Your task to perform on an android device: open app "Skype" Image 0: 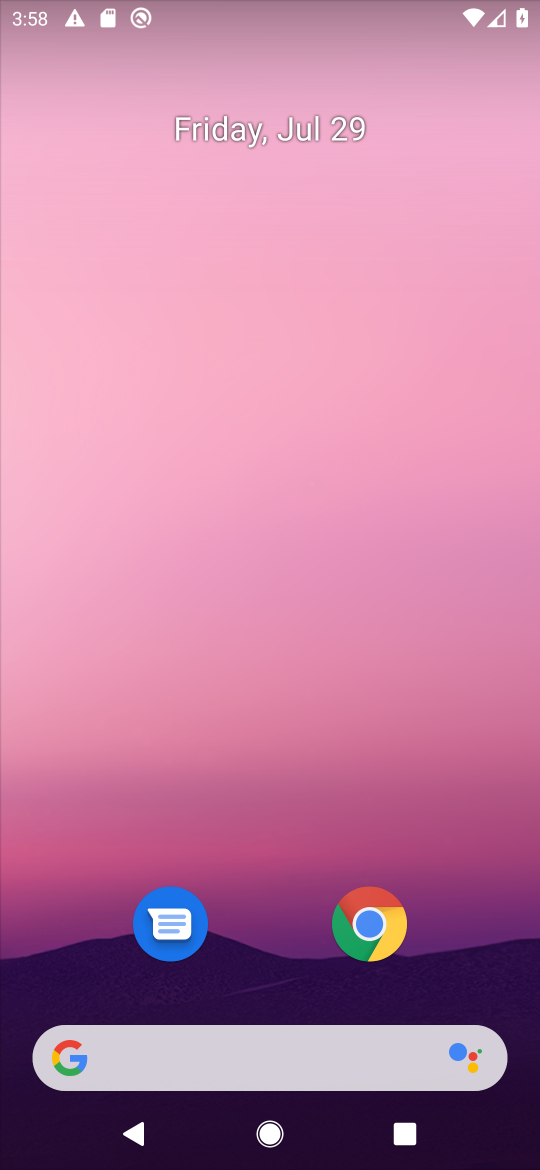
Step 0: drag from (346, 1081) to (150, 345)
Your task to perform on an android device: open app "Skype" Image 1: 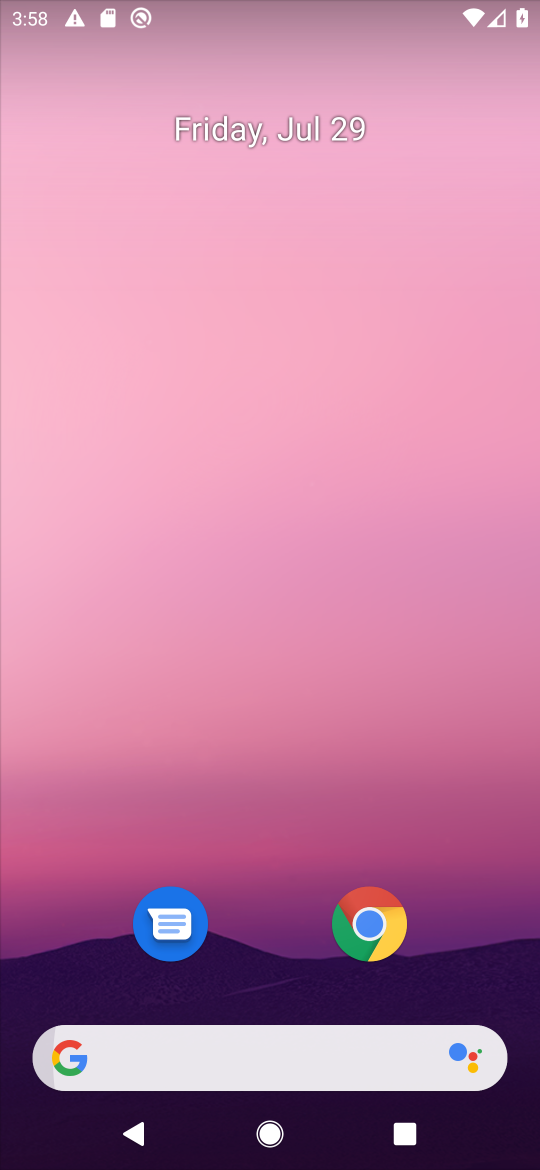
Step 1: drag from (303, 969) to (225, 365)
Your task to perform on an android device: open app "Skype" Image 2: 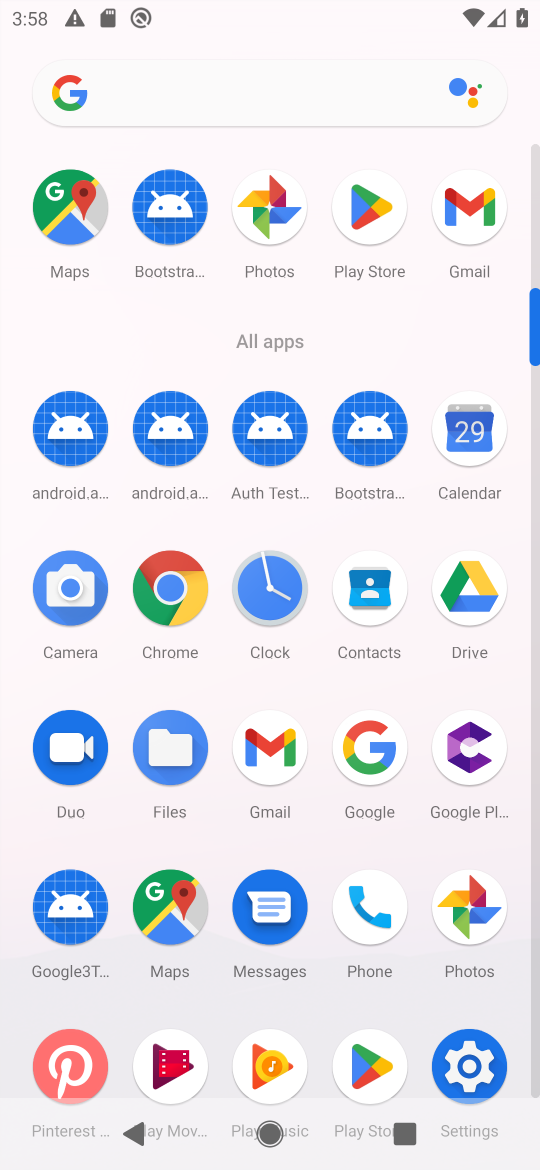
Step 2: drag from (332, 1012) to (278, 473)
Your task to perform on an android device: open app "Skype" Image 3: 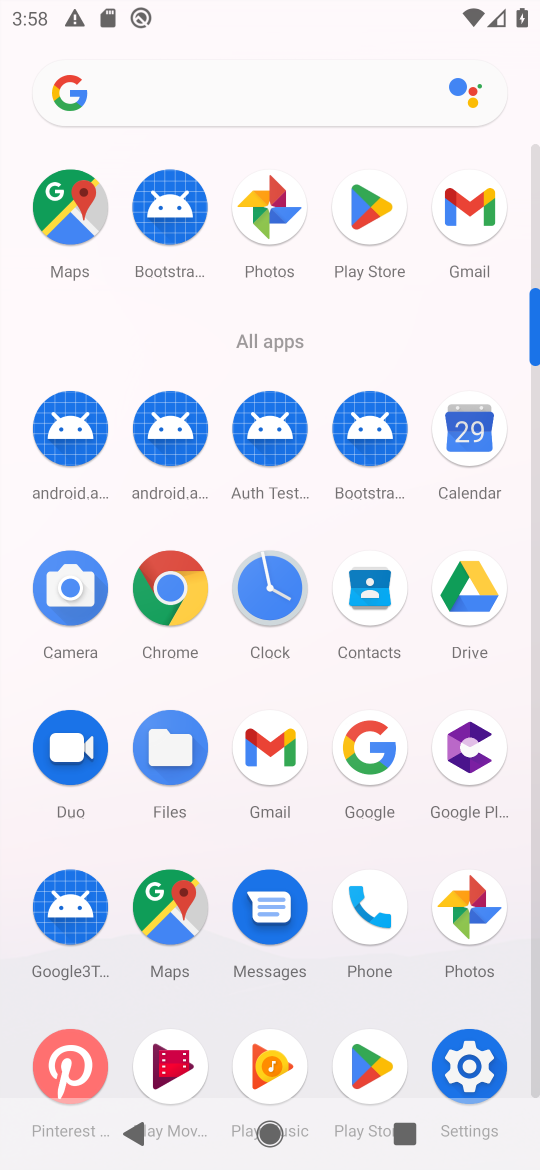
Step 3: click (361, 201)
Your task to perform on an android device: open app "Skype" Image 4: 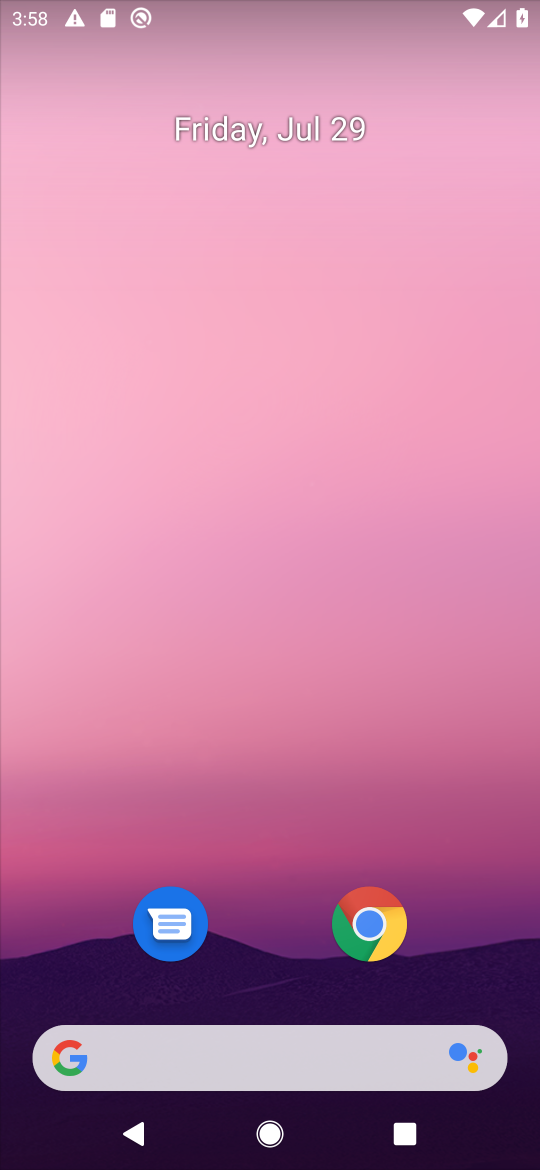
Step 4: click (356, 209)
Your task to perform on an android device: open app "Skype" Image 5: 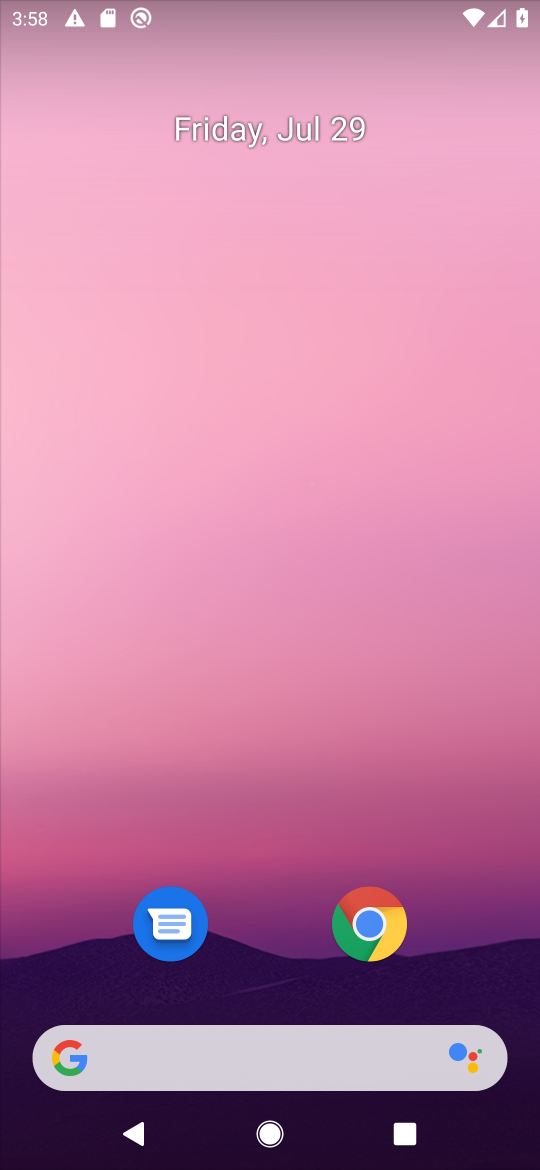
Step 5: drag from (367, 989) to (312, 291)
Your task to perform on an android device: open app "Skype" Image 6: 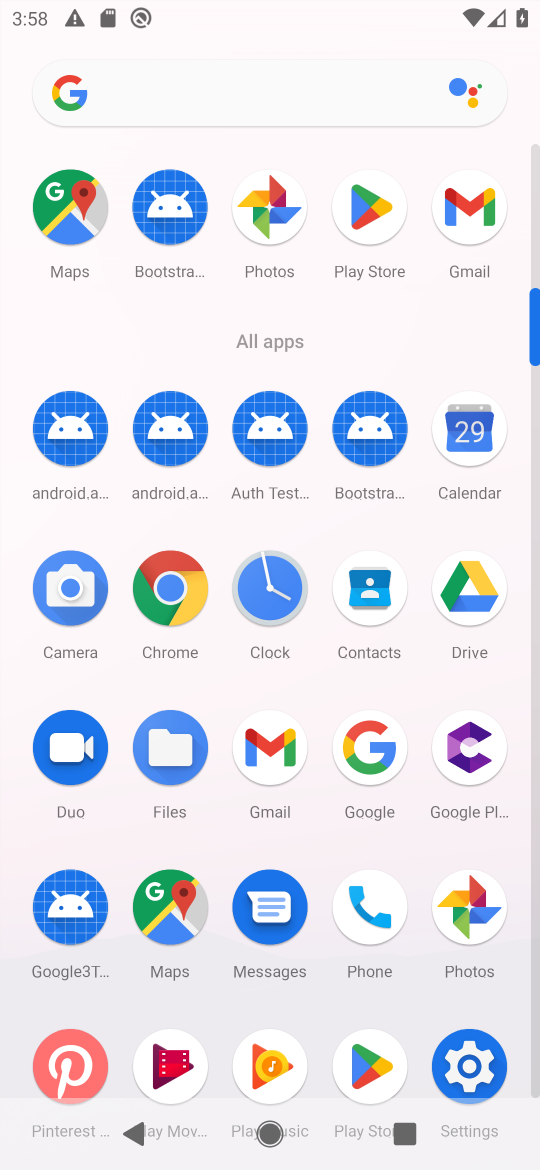
Step 6: click (372, 212)
Your task to perform on an android device: open app "Skype" Image 7: 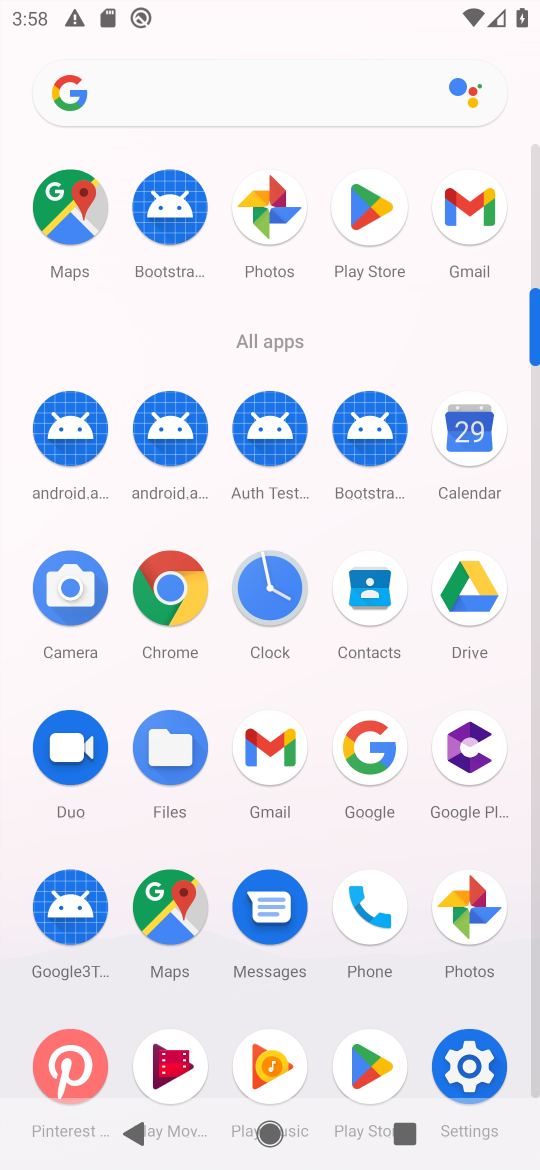
Step 7: click (374, 216)
Your task to perform on an android device: open app "Skype" Image 8: 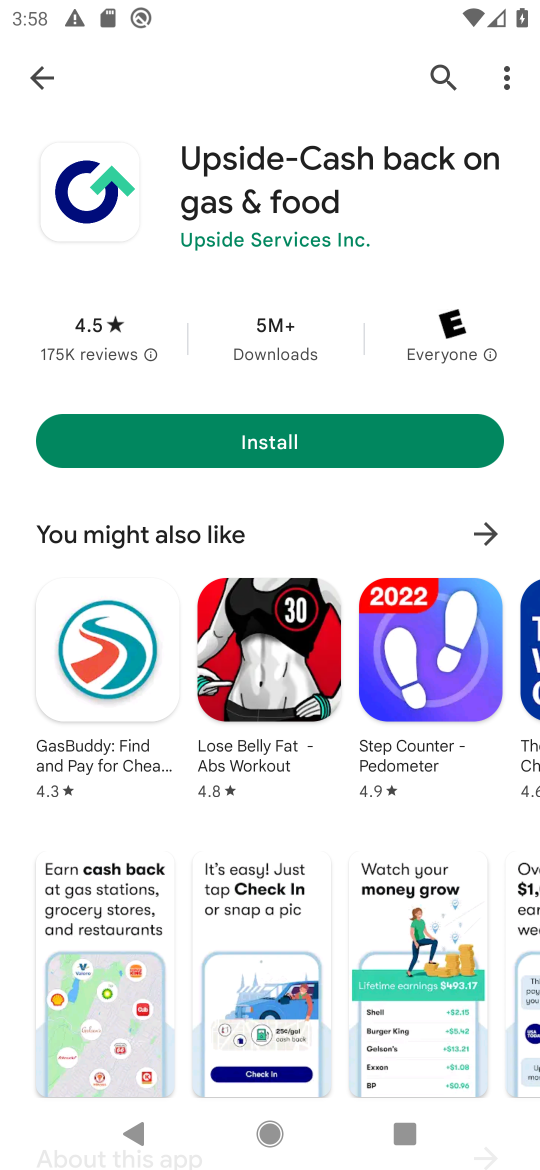
Step 8: click (35, 80)
Your task to perform on an android device: open app "Skype" Image 9: 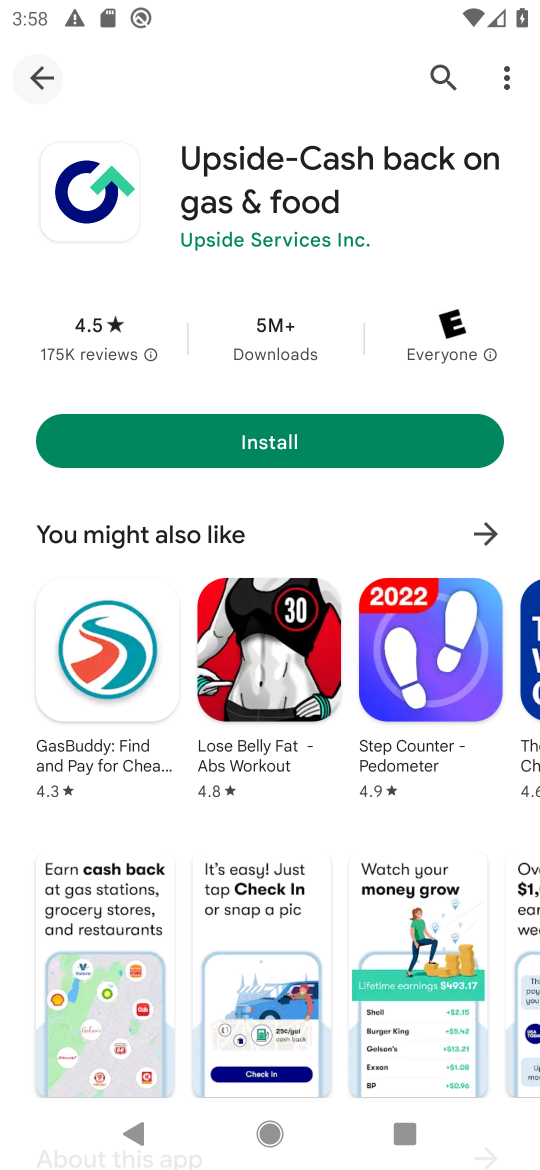
Step 9: click (30, 71)
Your task to perform on an android device: open app "Skype" Image 10: 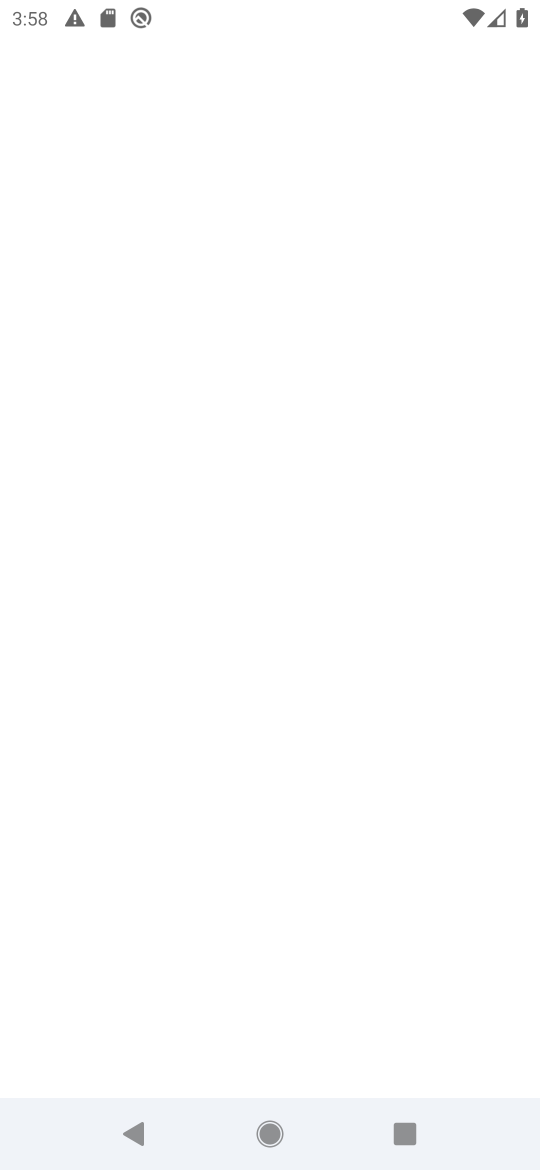
Step 10: click (30, 71)
Your task to perform on an android device: open app "Skype" Image 11: 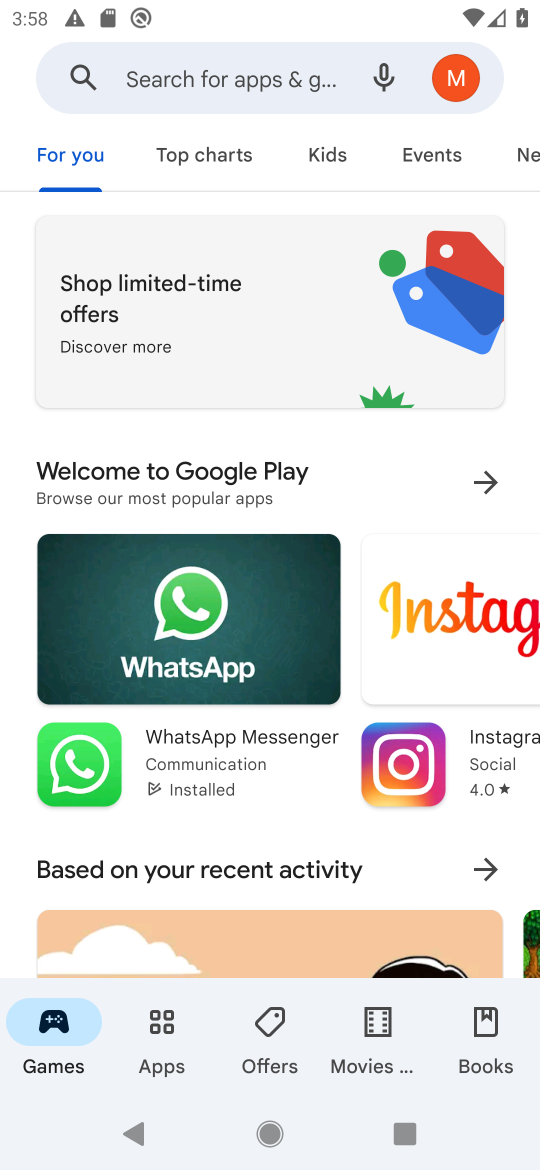
Step 11: click (139, 83)
Your task to perform on an android device: open app "Skype" Image 12: 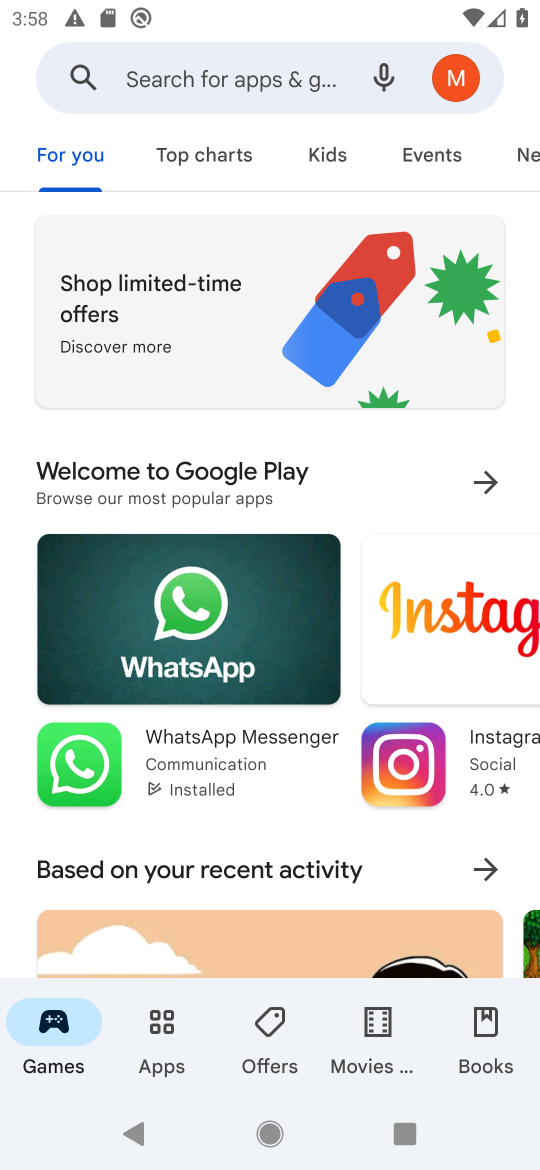
Step 12: click (139, 75)
Your task to perform on an android device: open app "Skype" Image 13: 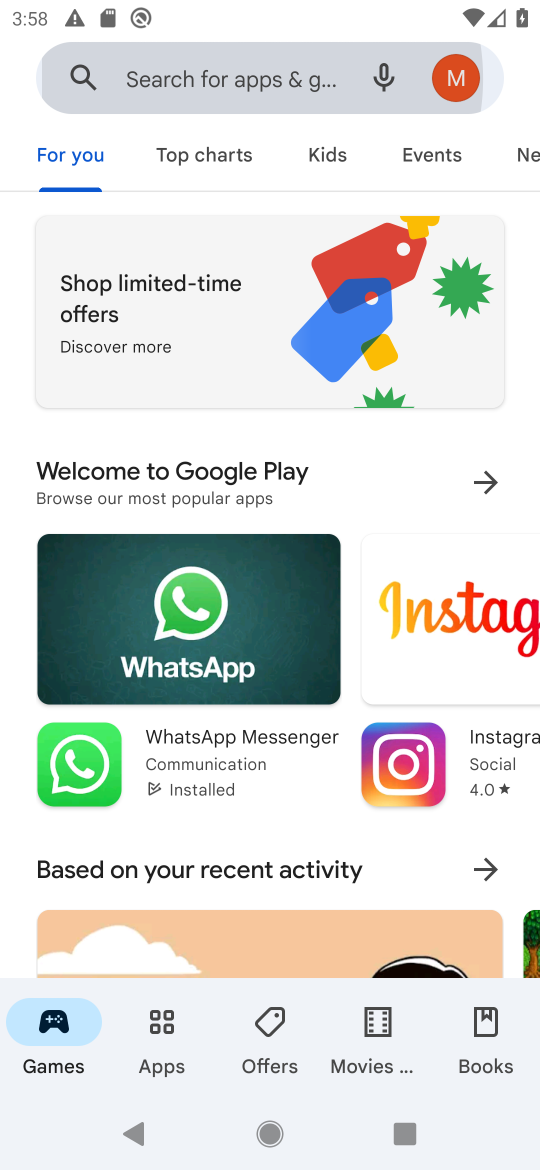
Step 13: click (139, 75)
Your task to perform on an android device: open app "Skype" Image 14: 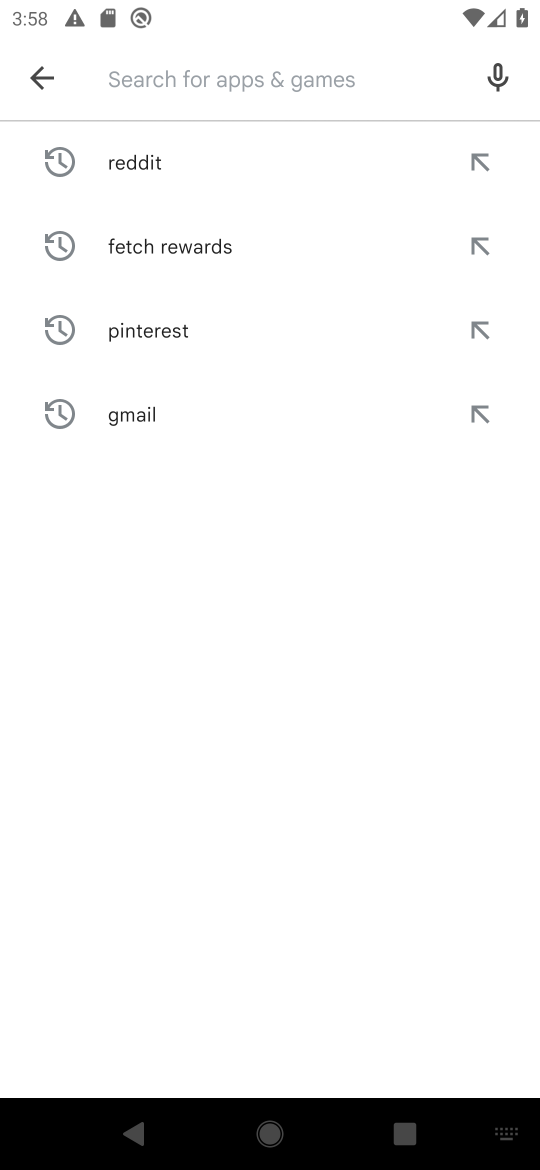
Step 14: type "skype"
Your task to perform on an android device: open app "Skype" Image 15: 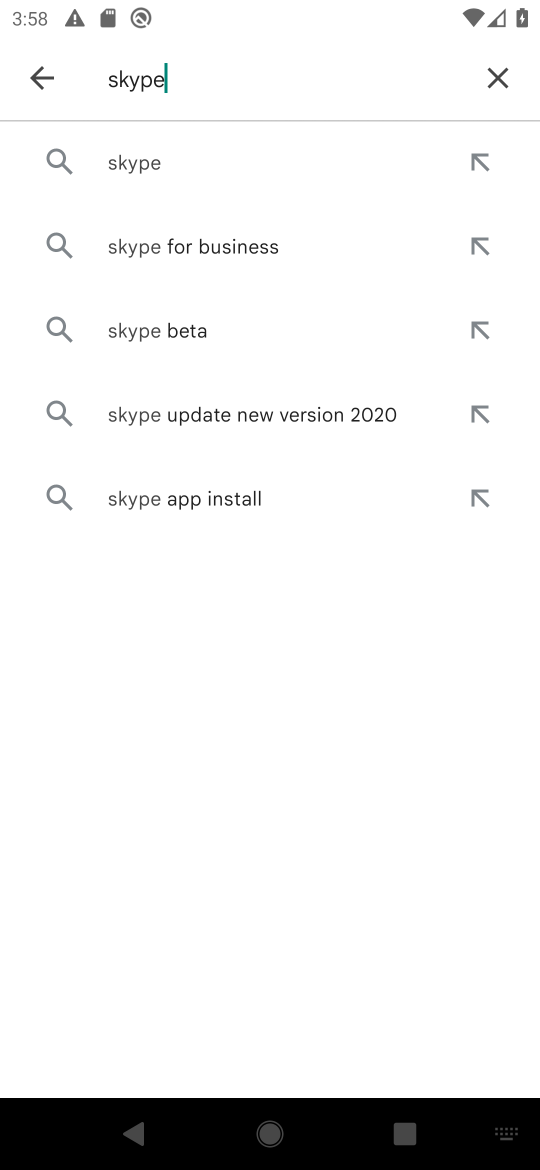
Step 15: click (128, 170)
Your task to perform on an android device: open app "Skype" Image 16: 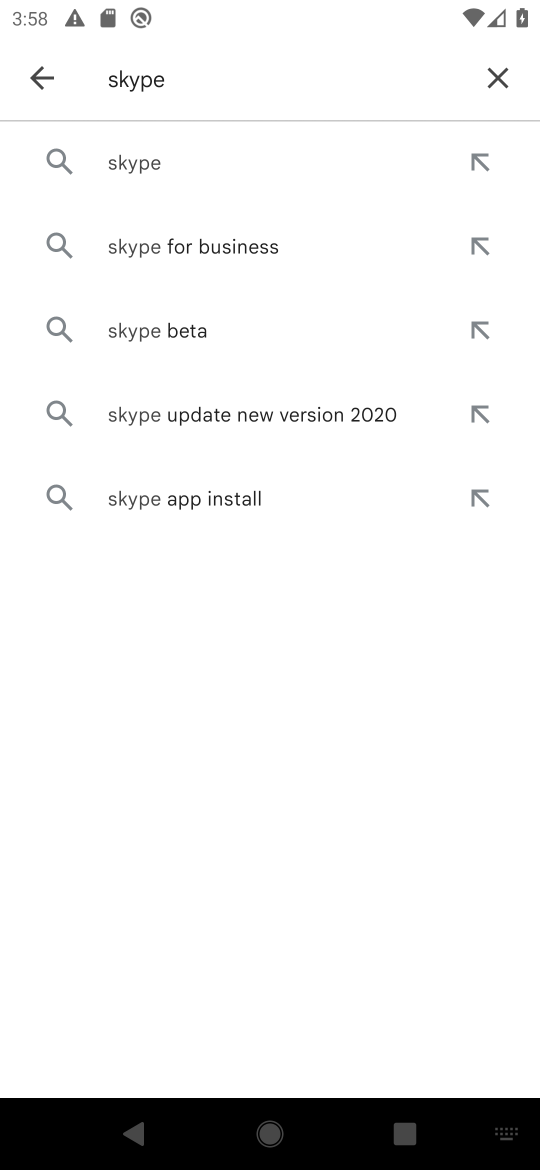
Step 16: click (138, 167)
Your task to perform on an android device: open app "Skype" Image 17: 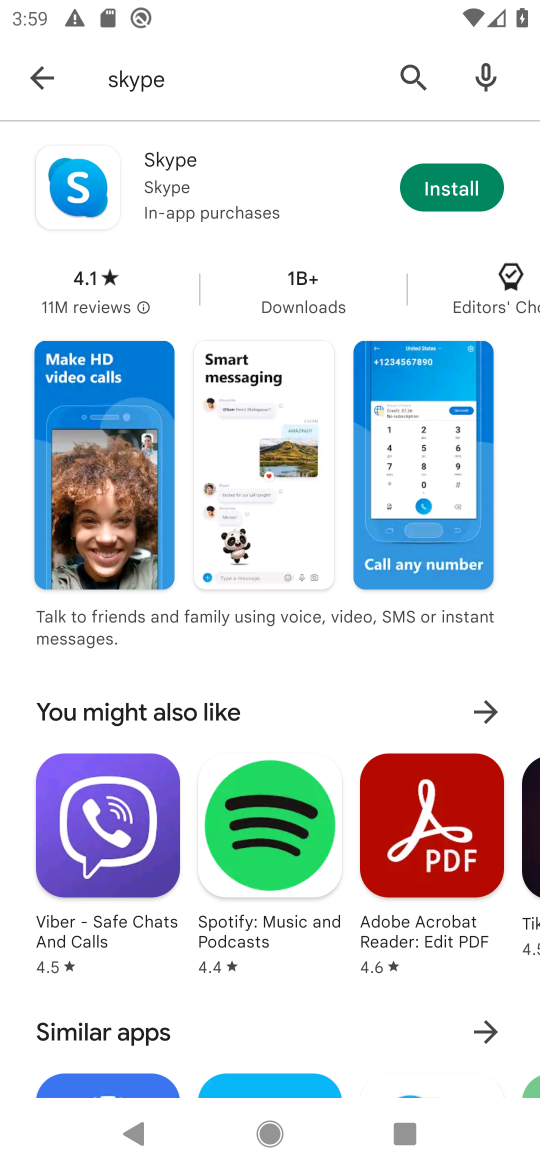
Step 17: click (451, 188)
Your task to perform on an android device: open app "Skype" Image 18: 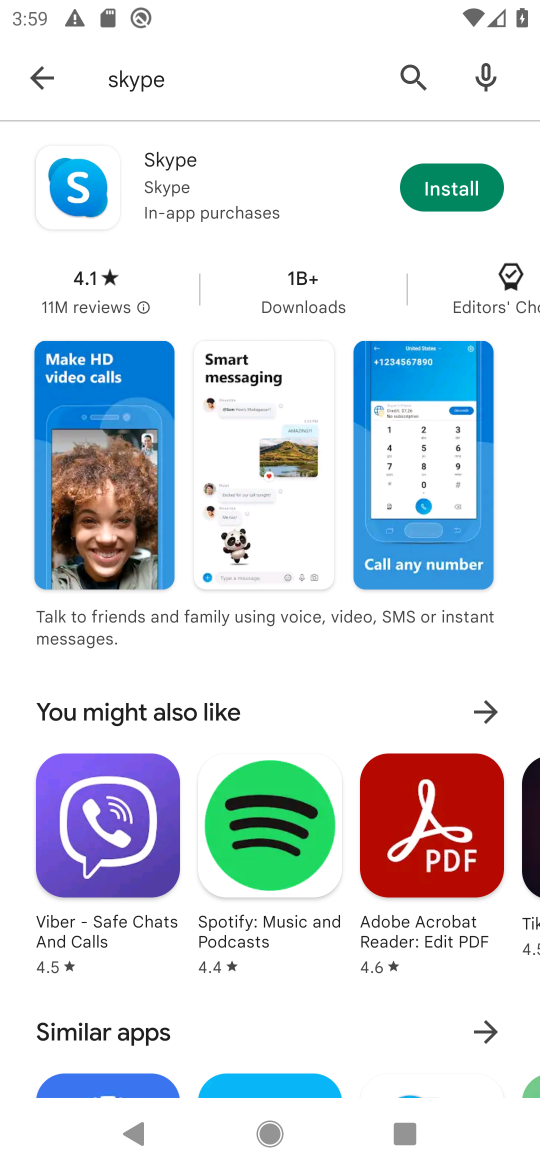
Step 18: click (449, 193)
Your task to perform on an android device: open app "Skype" Image 19: 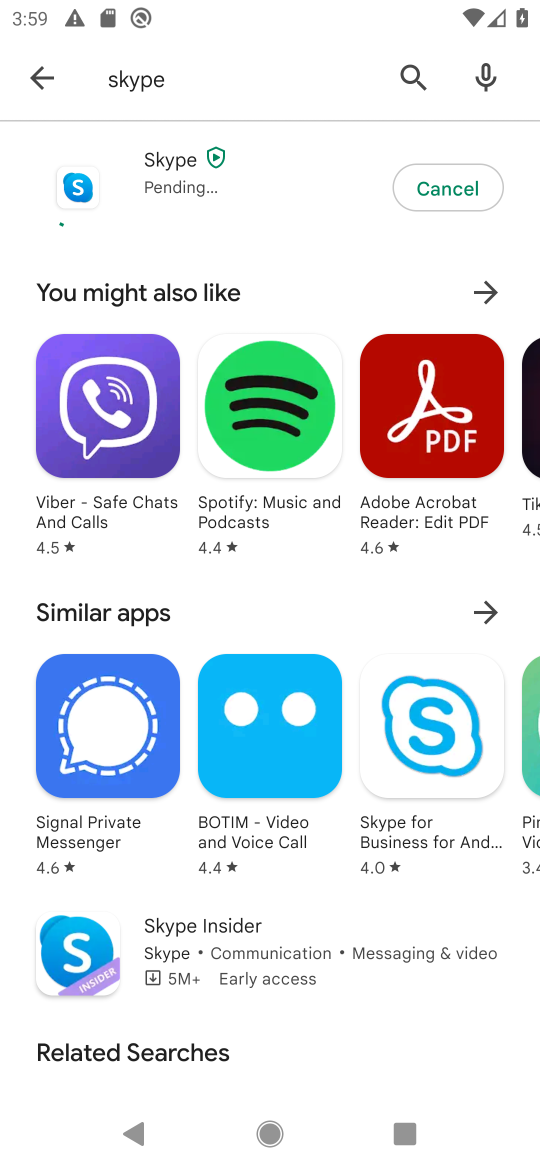
Step 19: click (442, 188)
Your task to perform on an android device: open app "Skype" Image 20: 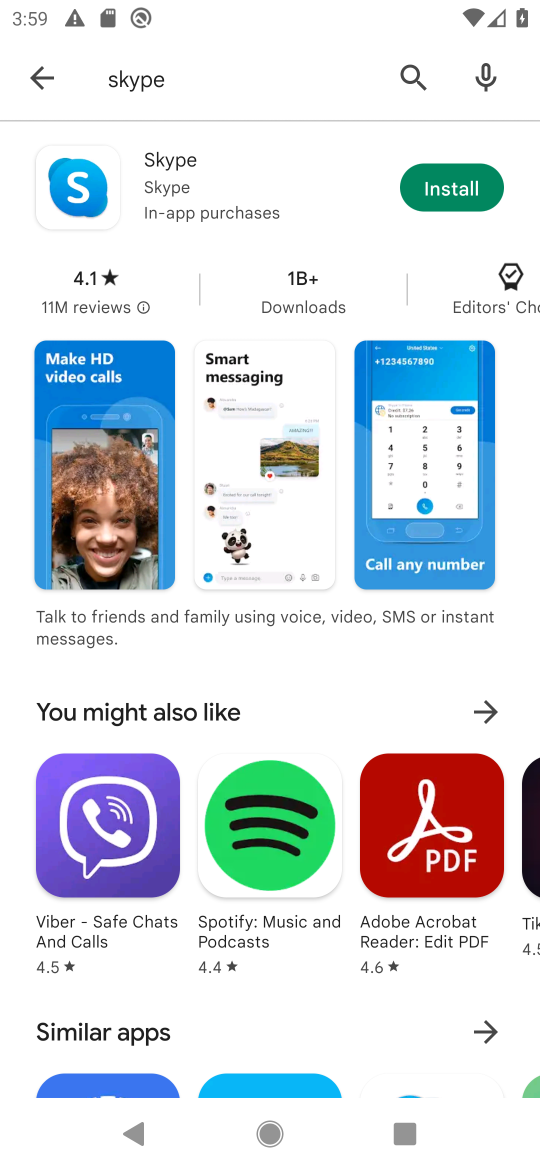
Step 20: click (448, 182)
Your task to perform on an android device: open app "Skype" Image 21: 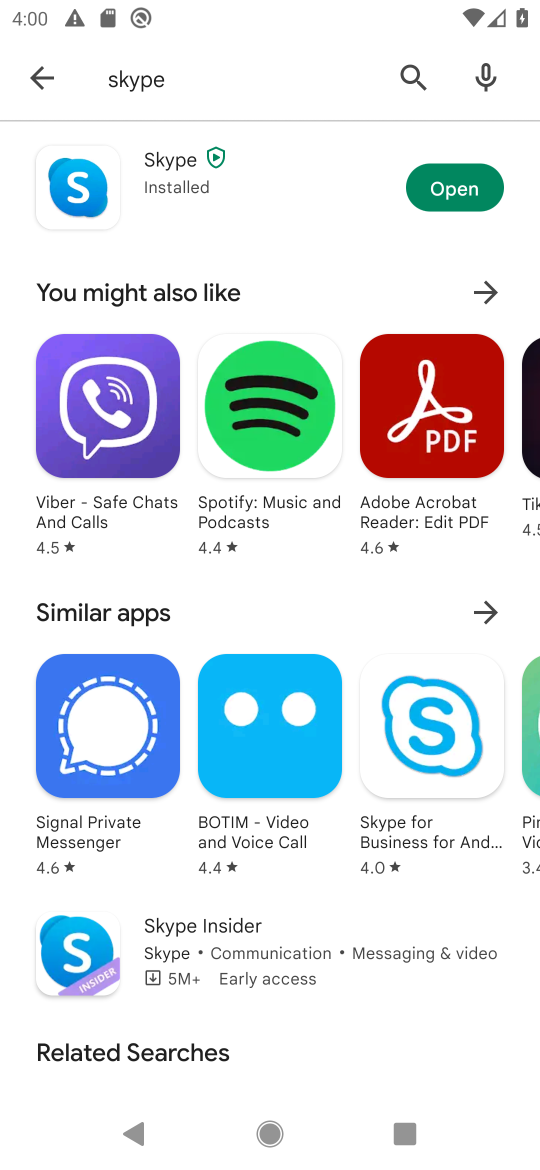
Step 21: click (444, 178)
Your task to perform on an android device: open app "Skype" Image 22: 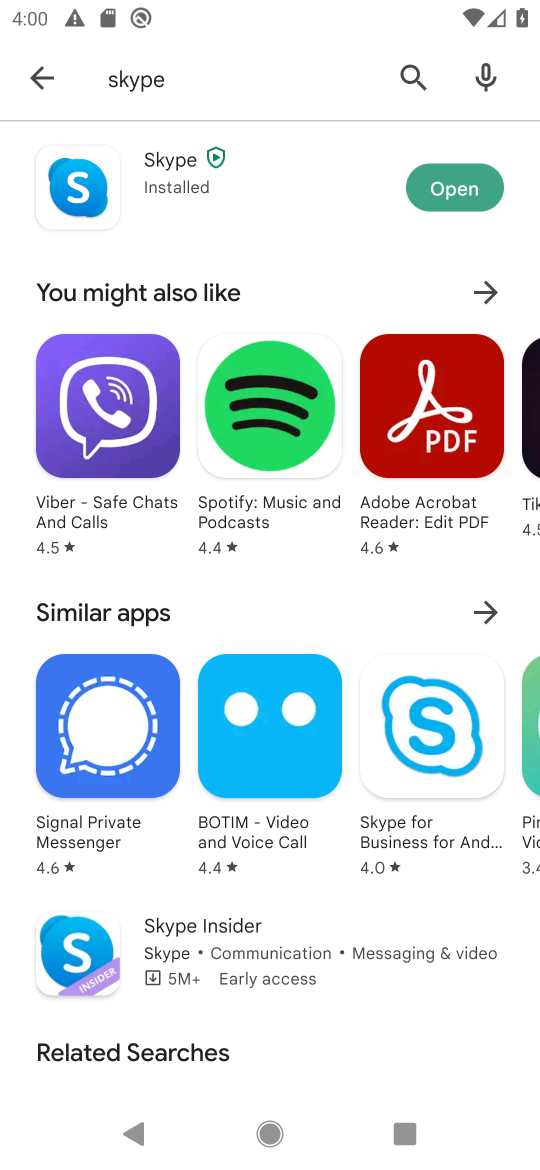
Step 22: click (450, 188)
Your task to perform on an android device: open app "Skype" Image 23: 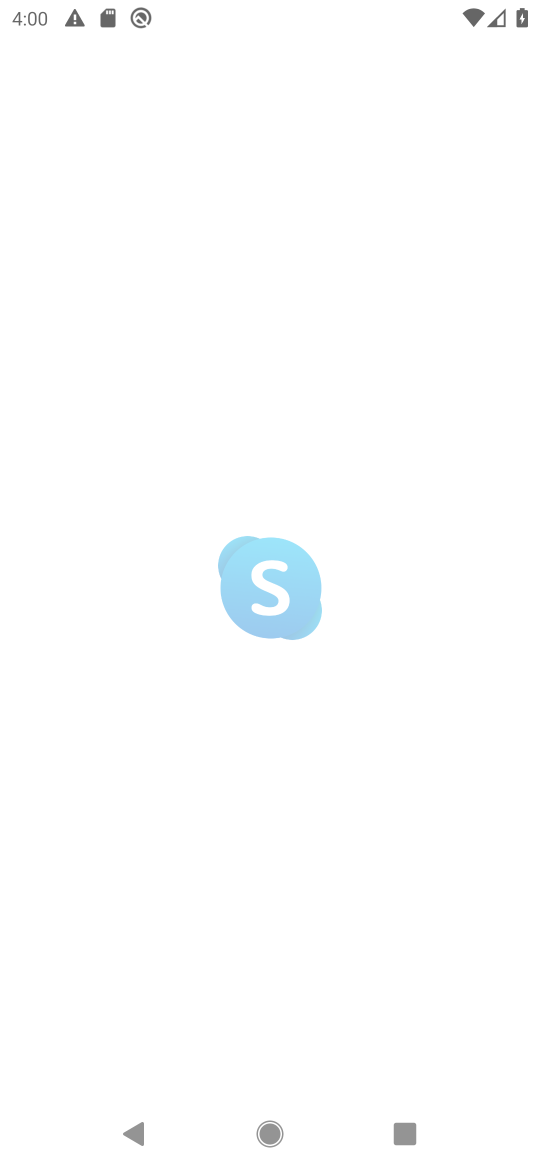
Step 23: task complete